Your task to perform on an android device: toggle notifications settings in the gmail app Image 0: 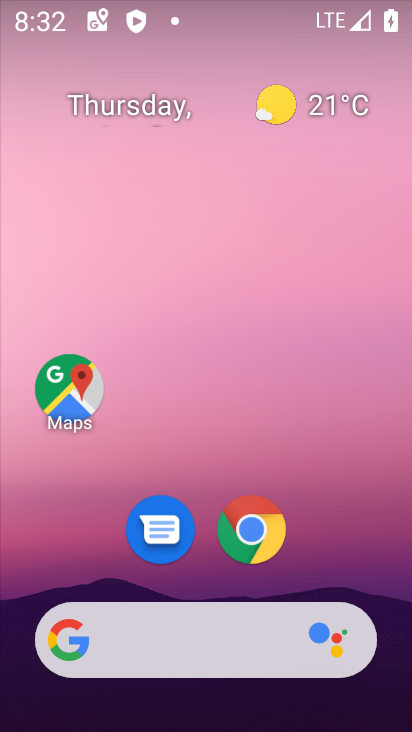
Step 0: drag from (265, 715) to (261, 49)
Your task to perform on an android device: toggle notifications settings in the gmail app Image 1: 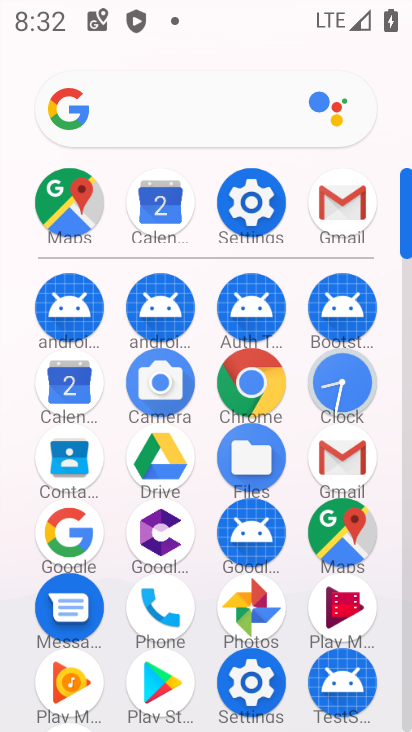
Step 1: click (351, 458)
Your task to perform on an android device: toggle notifications settings in the gmail app Image 2: 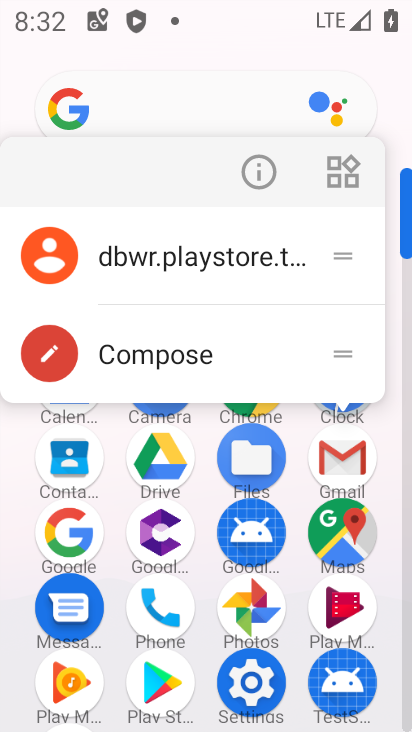
Step 2: click (258, 161)
Your task to perform on an android device: toggle notifications settings in the gmail app Image 3: 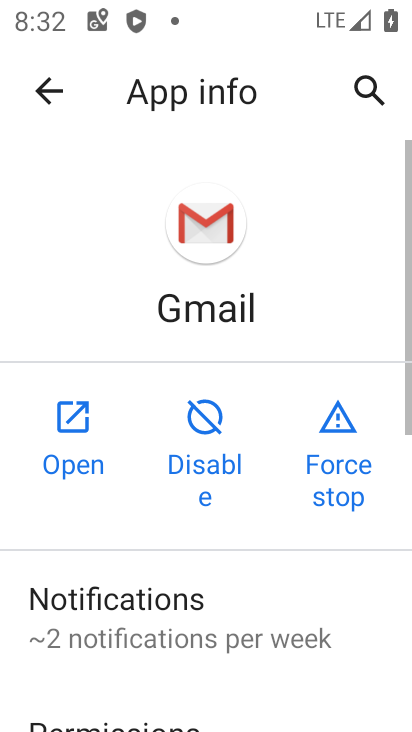
Step 3: drag from (332, 696) to (275, 107)
Your task to perform on an android device: toggle notifications settings in the gmail app Image 4: 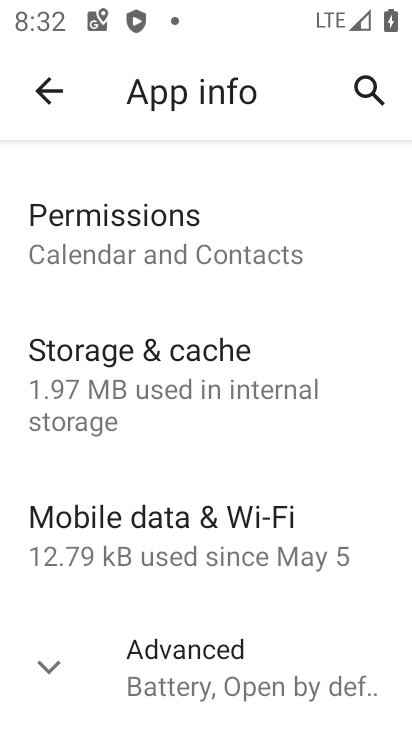
Step 4: drag from (326, 319) to (272, 717)
Your task to perform on an android device: toggle notifications settings in the gmail app Image 5: 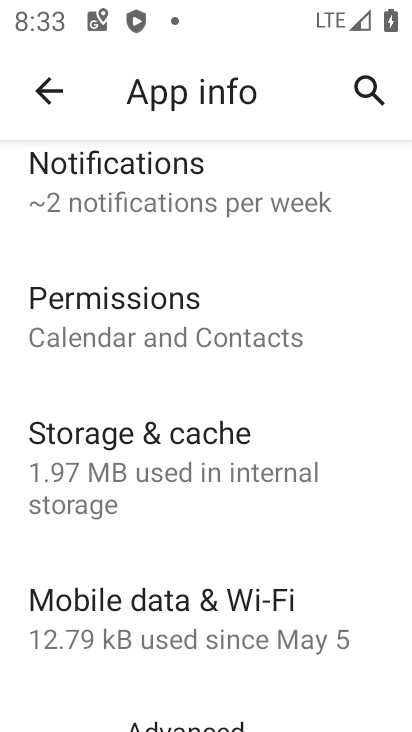
Step 5: drag from (354, 243) to (344, 549)
Your task to perform on an android device: toggle notifications settings in the gmail app Image 6: 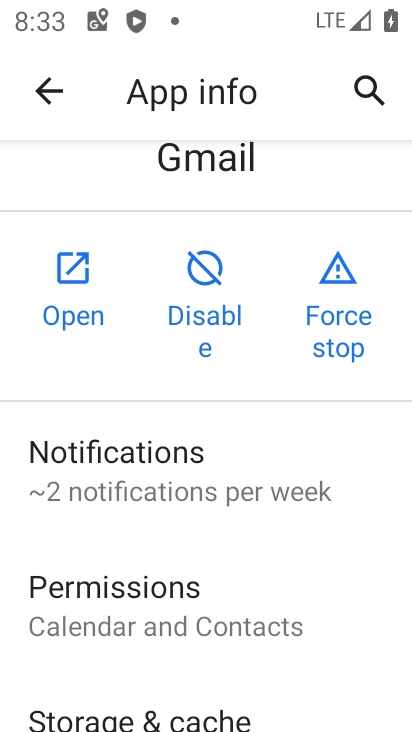
Step 6: click (208, 477)
Your task to perform on an android device: toggle notifications settings in the gmail app Image 7: 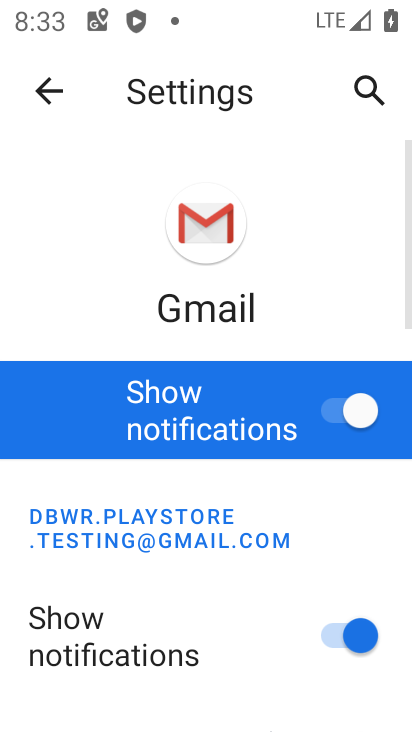
Step 7: click (363, 406)
Your task to perform on an android device: toggle notifications settings in the gmail app Image 8: 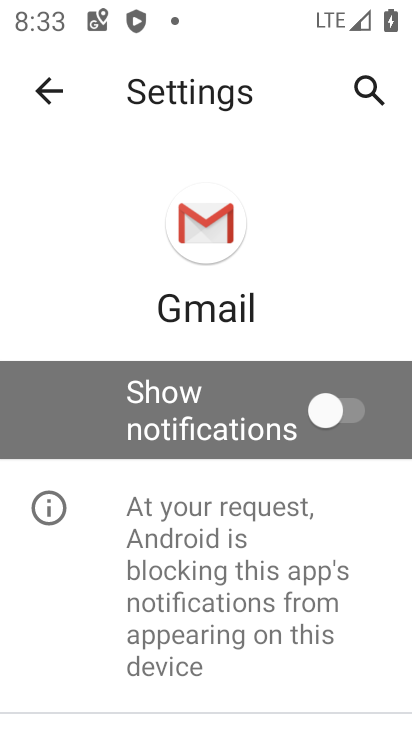
Step 8: task complete